Your task to perform on an android device: turn off notifications settings in the gmail app Image 0: 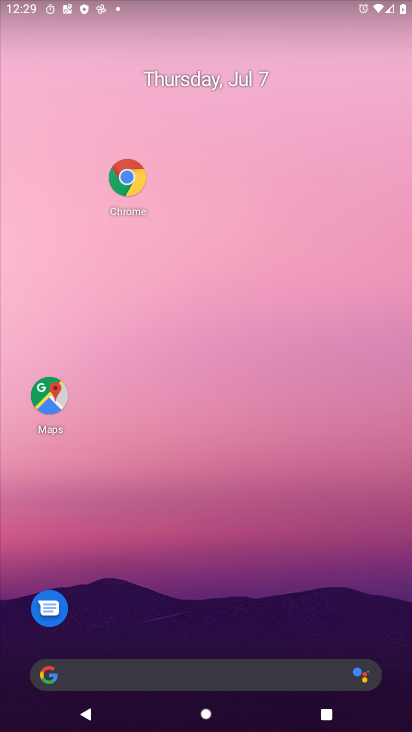
Step 0: drag from (195, 661) to (256, 222)
Your task to perform on an android device: turn off notifications settings in the gmail app Image 1: 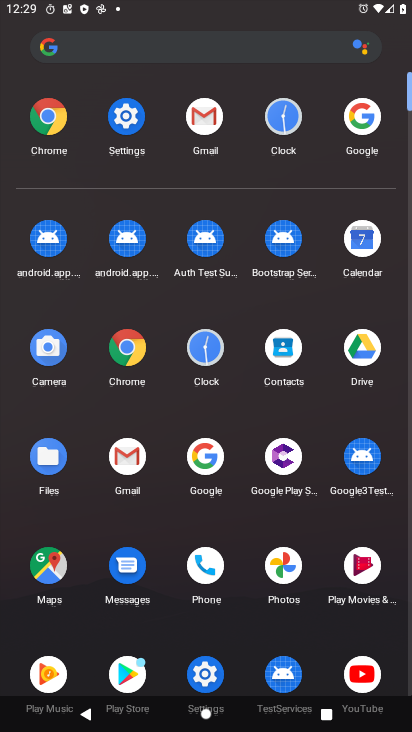
Step 1: click (209, 105)
Your task to perform on an android device: turn off notifications settings in the gmail app Image 2: 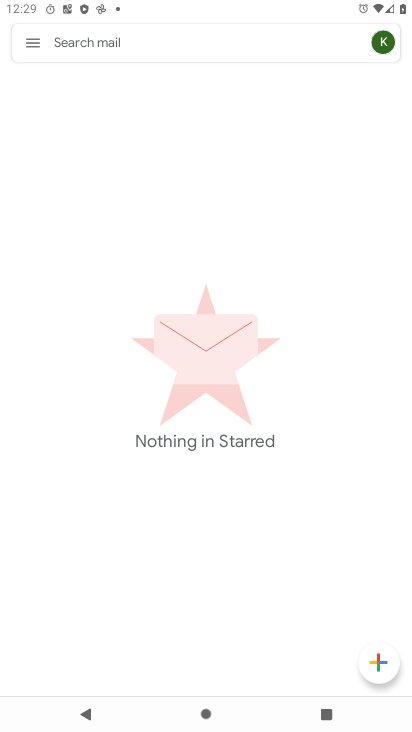
Step 2: click (38, 46)
Your task to perform on an android device: turn off notifications settings in the gmail app Image 3: 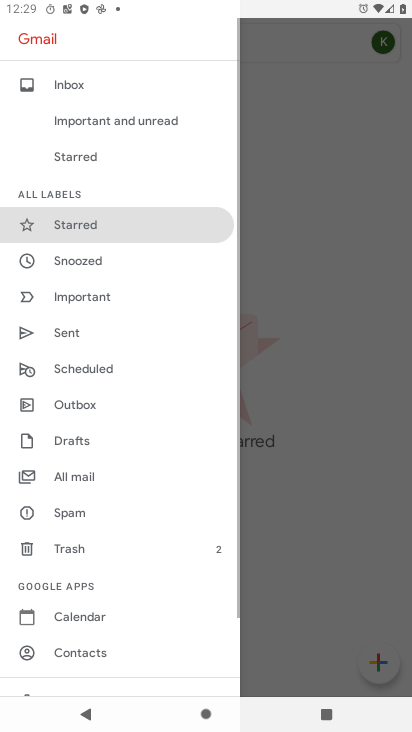
Step 3: drag from (77, 625) to (114, 369)
Your task to perform on an android device: turn off notifications settings in the gmail app Image 4: 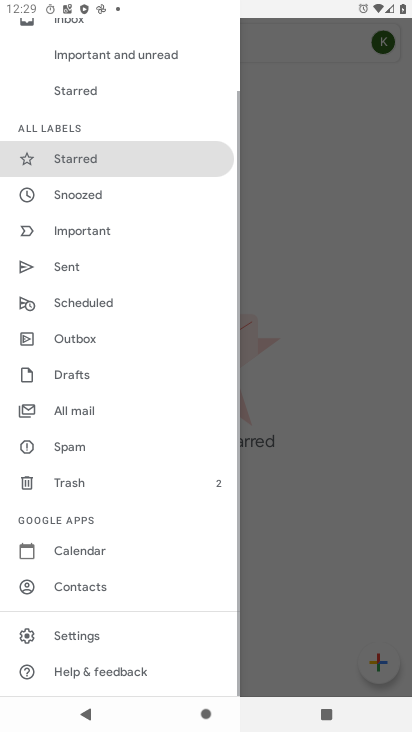
Step 4: click (83, 646)
Your task to perform on an android device: turn off notifications settings in the gmail app Image 5: 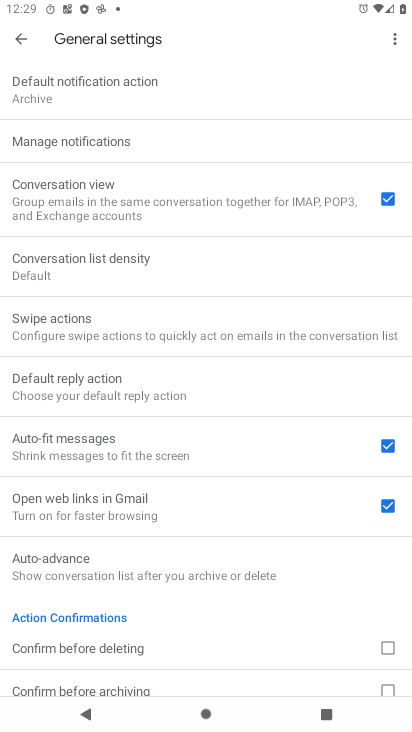
Step 5: click (120, 140)
Your task to perform on an android device: turn off notifications settings in the gmail app Image 6: 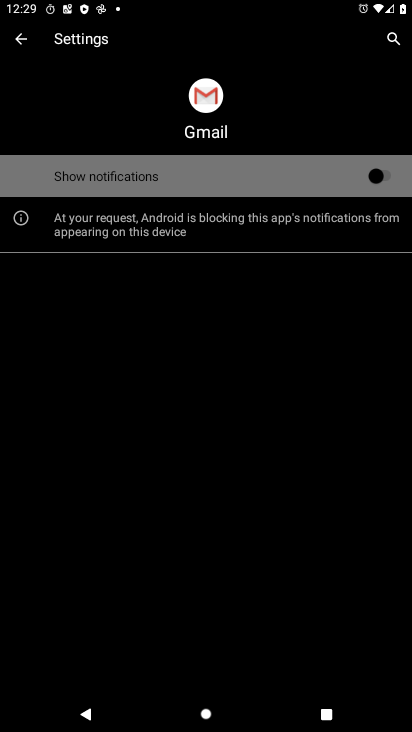
Step 6: task complete